Your task to perform on an android device: Search for hotels in Tokyo Image 0: 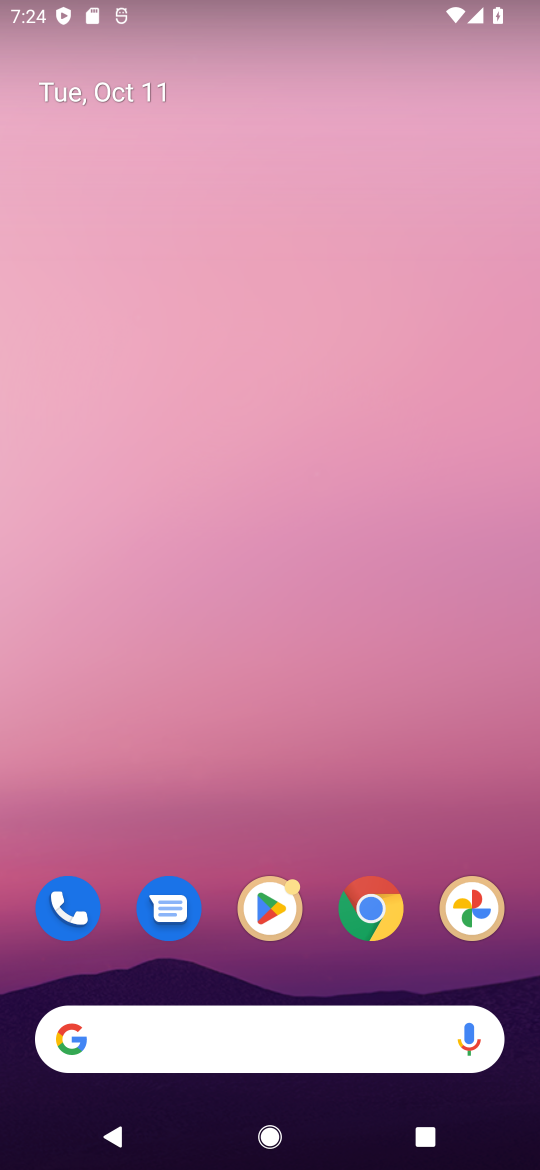
Step 0: click (258, 1039)
Your task to perform on an android device: Search for hotels in Tokyo Image 1: 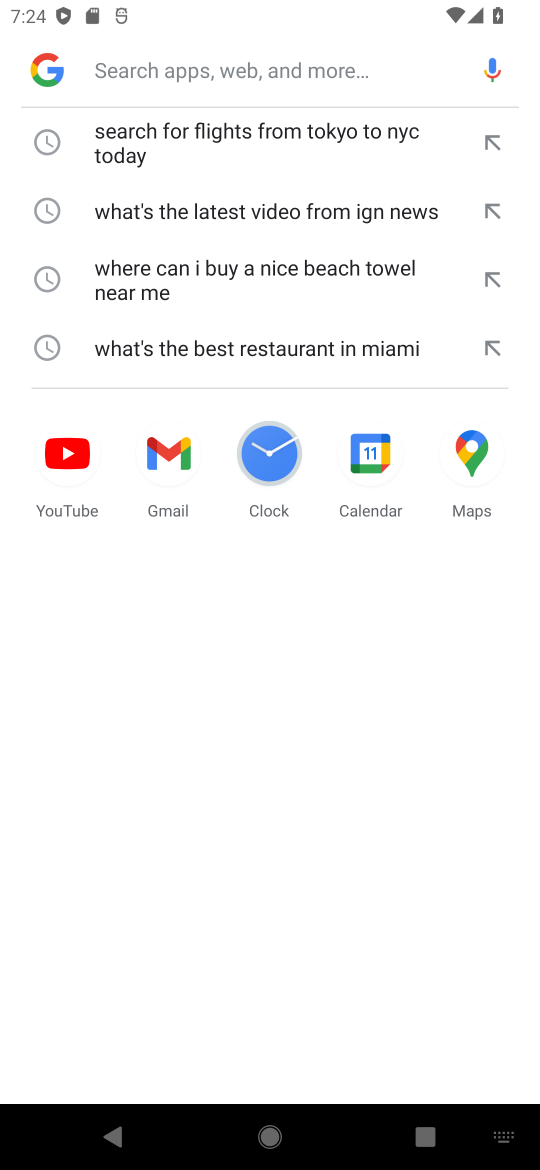
Step 1: type "Search for hotels in Tokyo"
Your task to perform on an android device: Search for hotels in Tokyo Image 2: 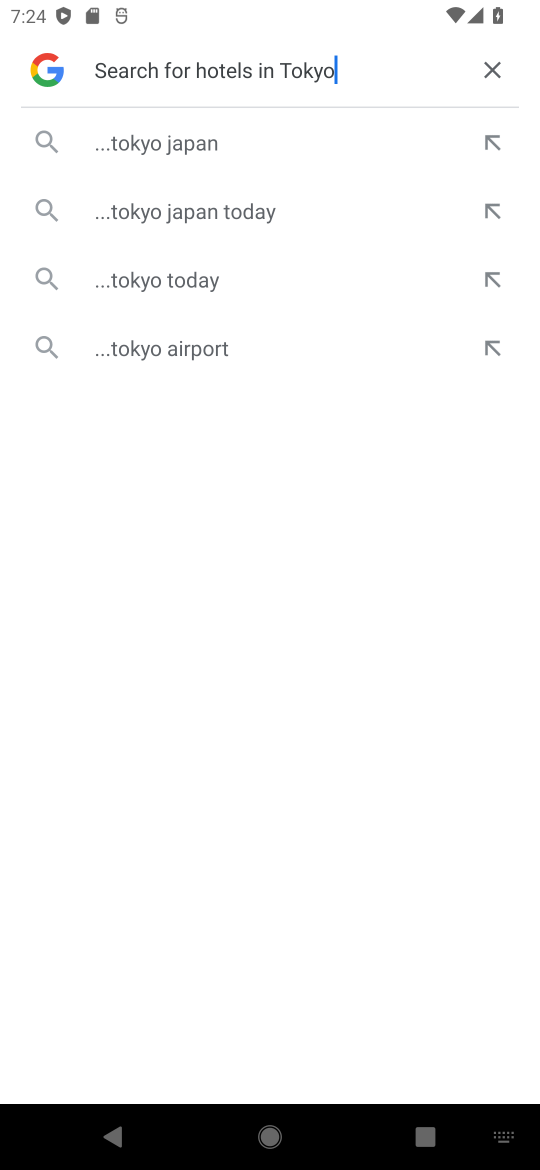
Step 2: click (166, 275)
Your task to perform on an android device: Search for hotels in Tokyo Image 3: 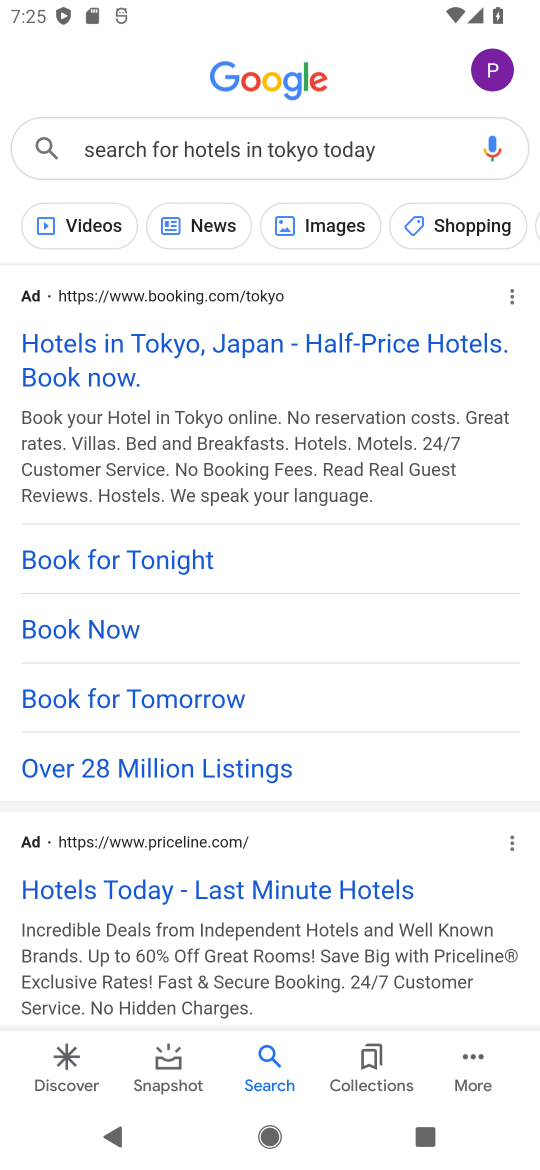
Step 3: click (212, 340)
Your task to perform on an android device: Search for hotels in Tokyo Image 4: 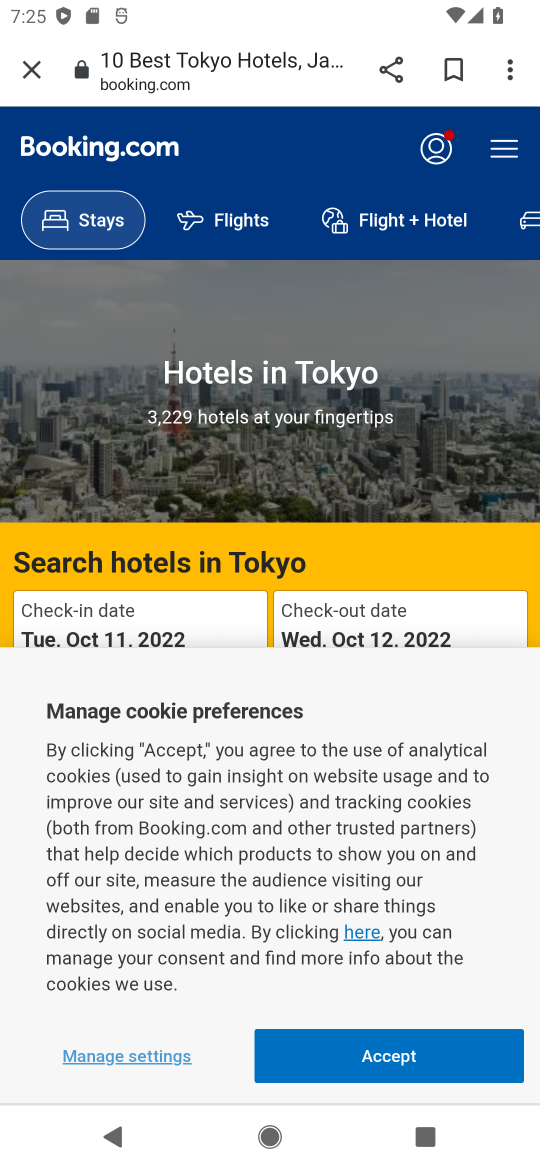
Step 4: click (388, 1049)
Your task to perform on an android device: Search for hotels in Tokyo Image 5: 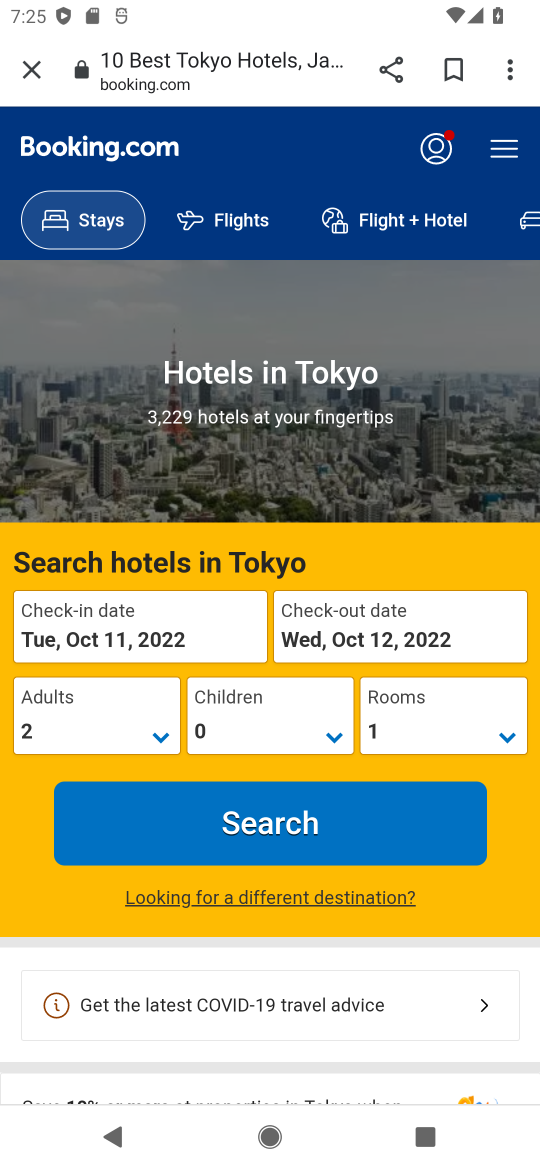
Step 5: click (304, 838)
Your task to perform on an android device: Search for hotels in Tokyo Image 6: 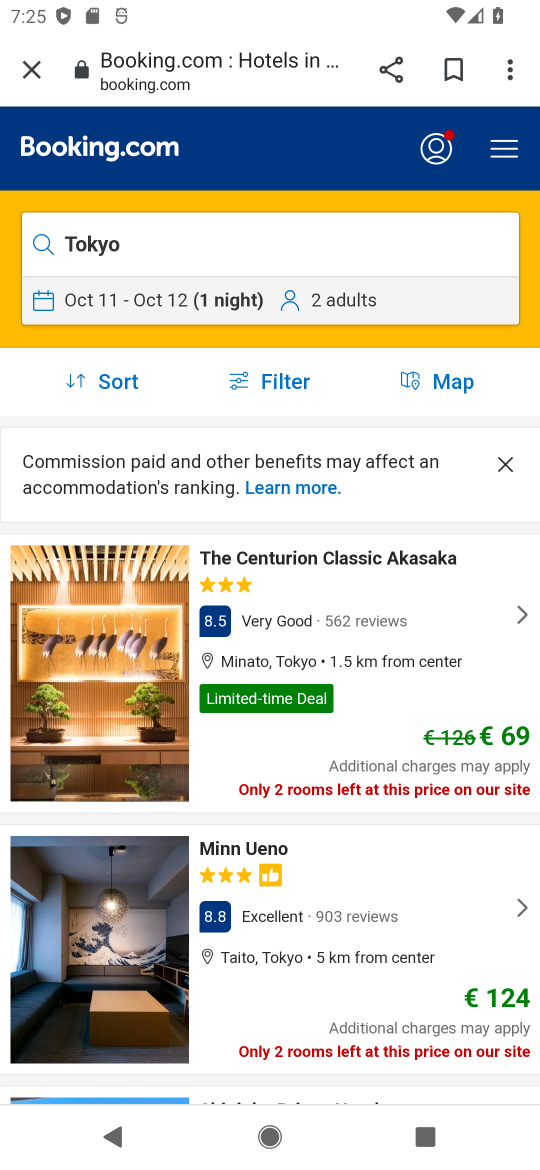
Step 6: task complete